Your task to perform on an android device: turn off javascript in the chrome app Image 0: 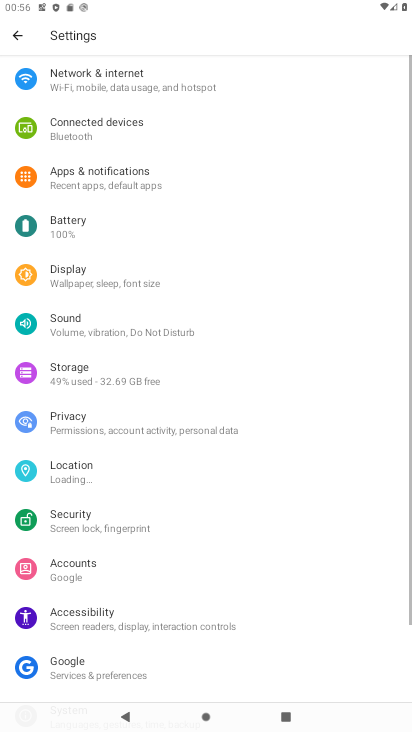
Step 0: press home button
Your task to perform on an android device: turn off javascript in the chrome app Image 1: 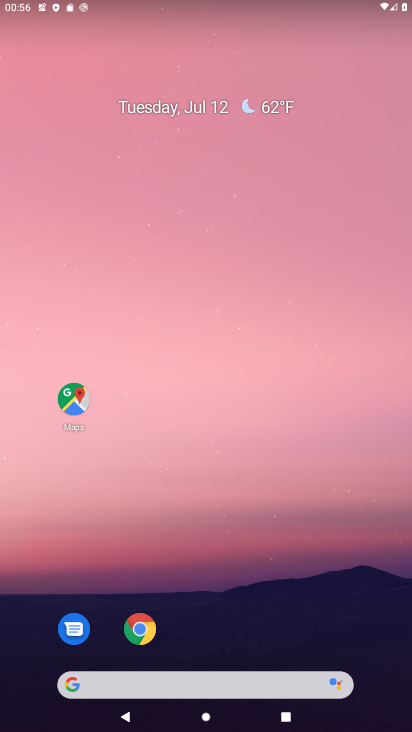
Step 1: drag from (288, 535) to (290, 170)
Your task to perform on an android device: turn off javascript in the chrome app Image 2: 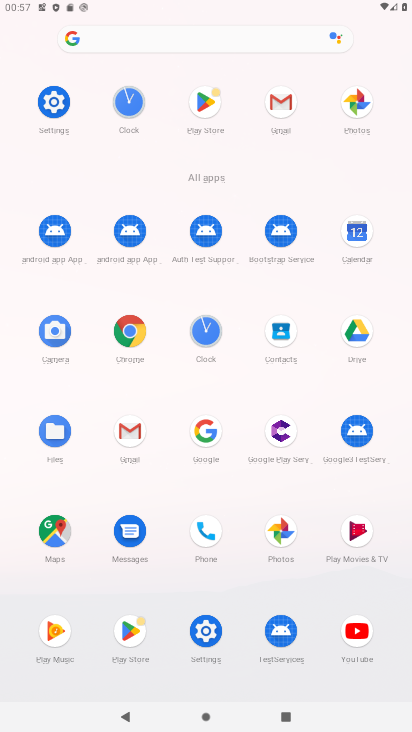
Step 2: click (214, 640)
Your task to perform on an android device: turn off javascript in the chrome app Image 3: 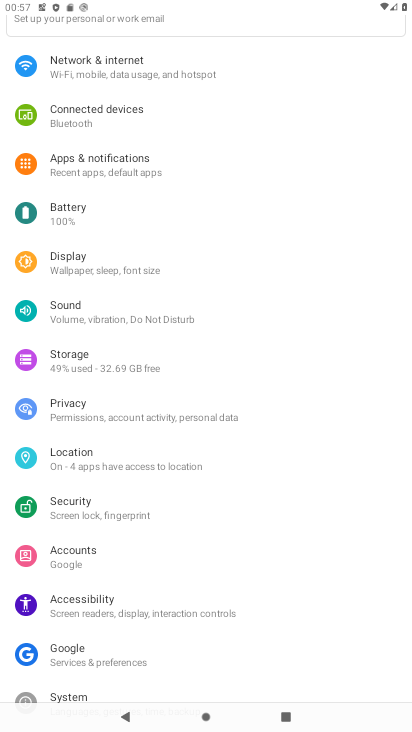
Step 3: press home button
Your task to perform on an android device: turn off javascript in the chrome app Image 4: 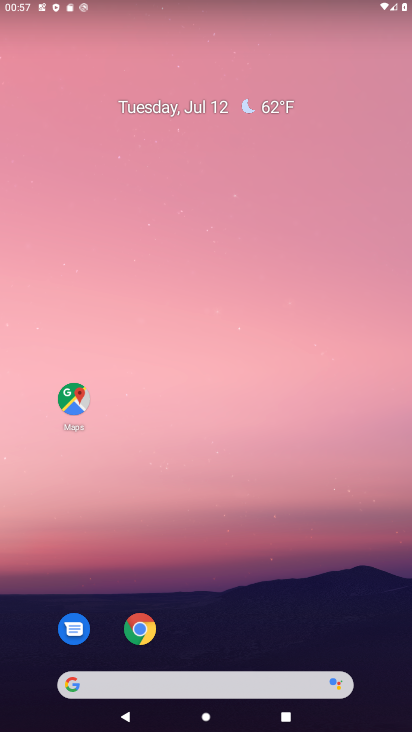
Step 4: drag from (362, 638) to (299, 350)
Your task to perform on an android device: turn off javascript in the chrome app Image 5: 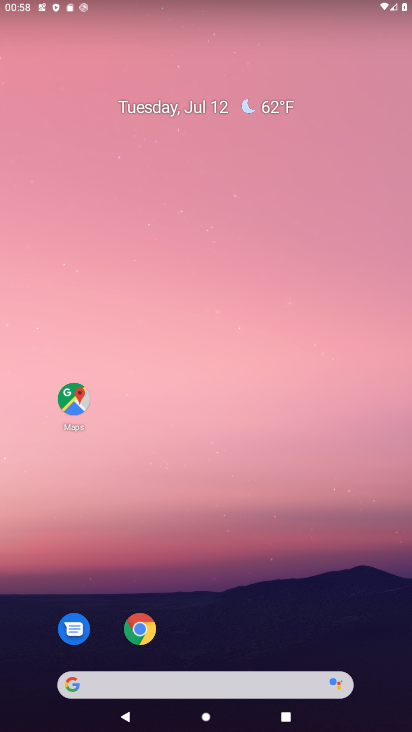
Step 5: drag from (249, 637) to (137, 0)
Your task to perform on an android device: turn off javascript in the chrome app Image 6: 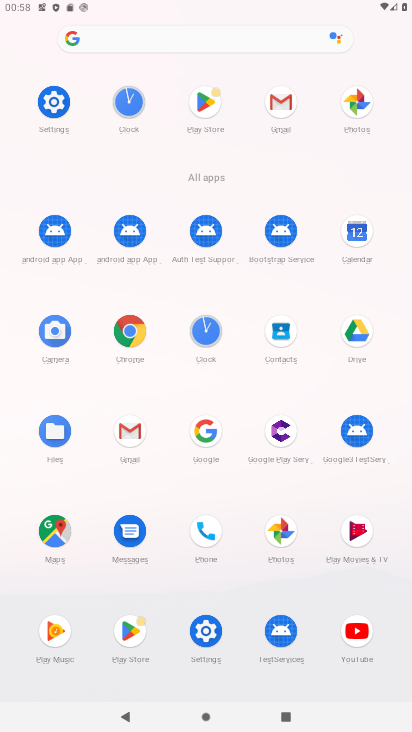
Step 6: click (147, 323)
Your task to perform on an android device: turn off javascript in the chrome app Image 7: 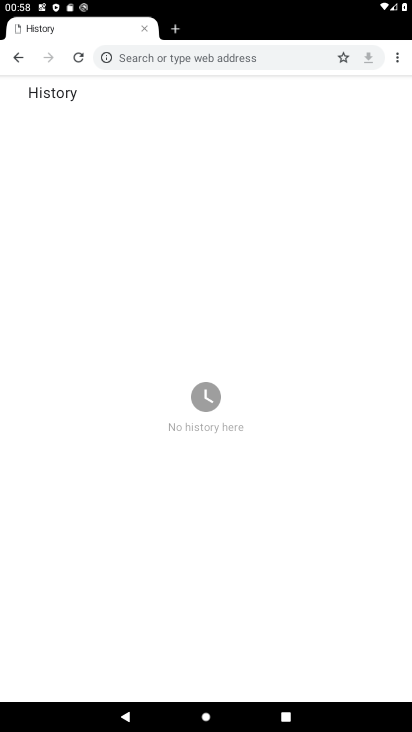
Step 7: click (21, 71)
Your task to perform on an android device: turn off javascript in the chrome app Image 8: 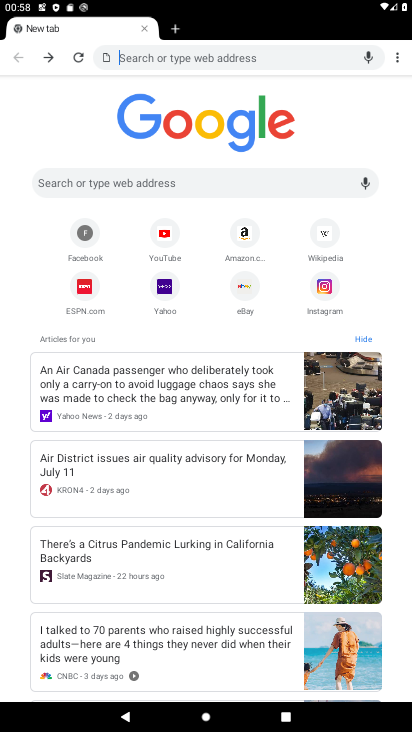
Step 8: drag from (396, 52) to (308, 259)
Your task to perform on an android device: turn off javascript in the chrome app Image 9: 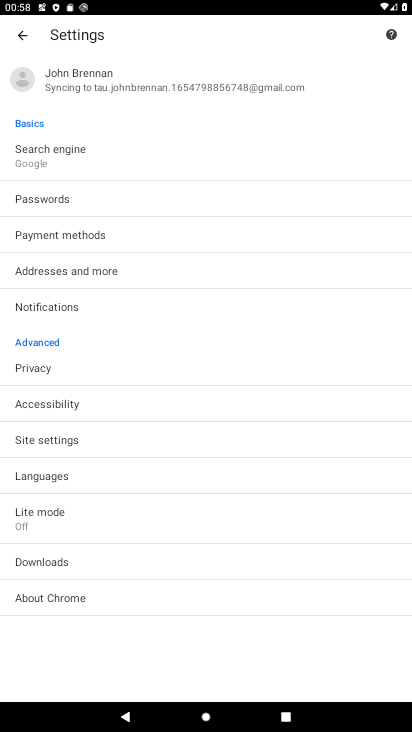
Step 9: click (21, 438)
Your task to perform on an android device: turn off javascript in the chrome app Image 10: 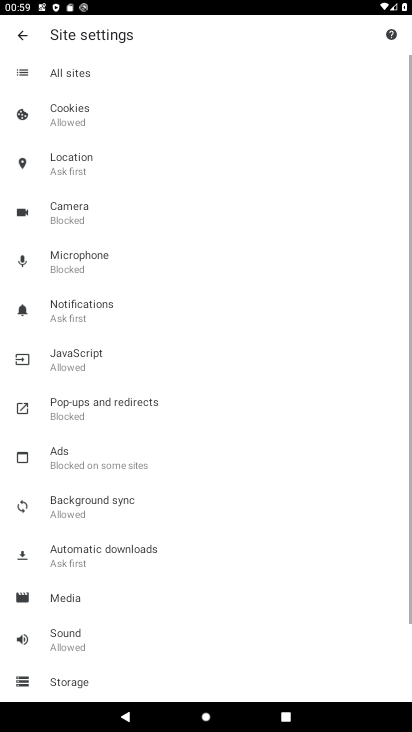
Step 10: click (27, 365)
Your task to perform on an android device: turn off javascript in the chrome app Image 11: 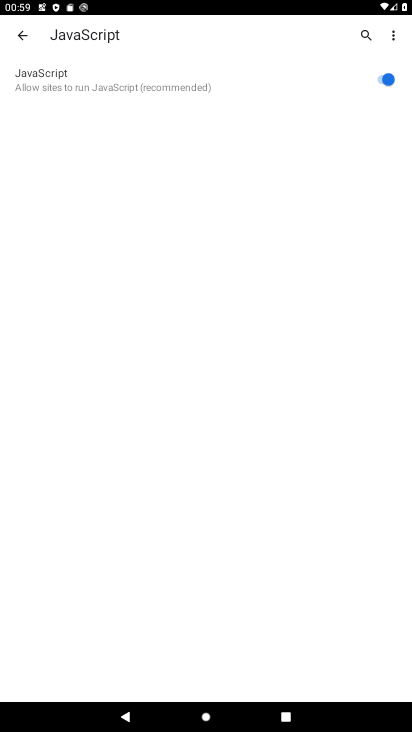
Step 11: click (335, 72)
Your task to perform on an android device: turn off javascript in the chrome app Image 12: 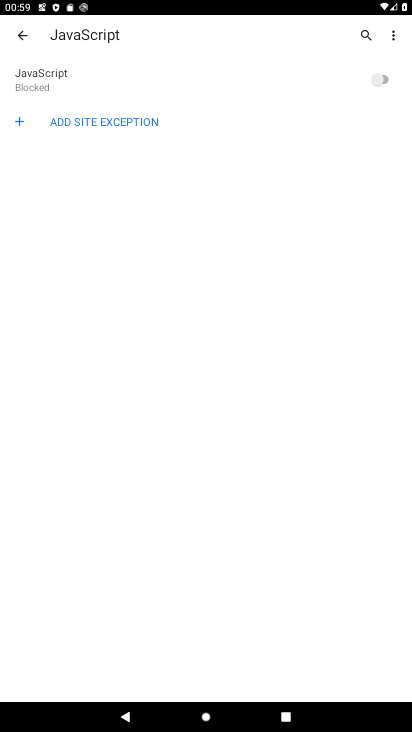
Step 12: task complete